Your task to perform on an android device: change keyboard looks Image 0: 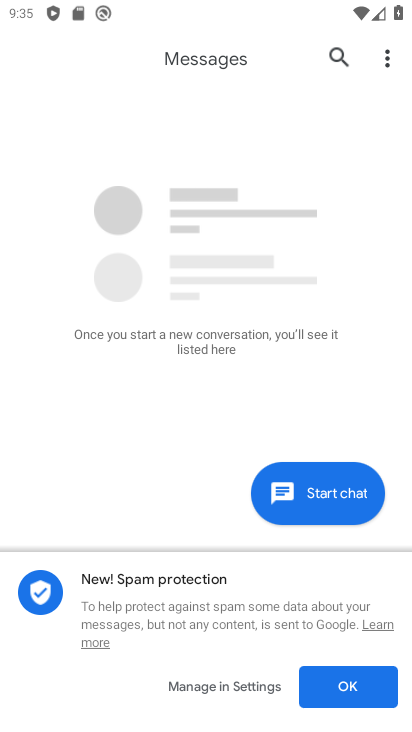
Step 0: press home button
Your task to perform on an android device: change keyboard looks Image 1: 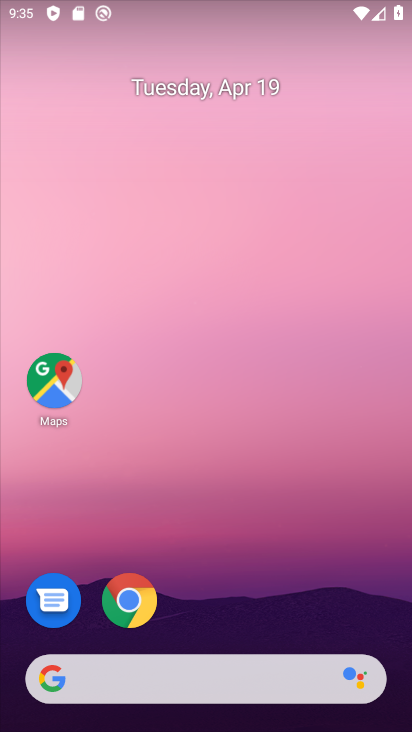
Step 1: drag from (265, 538) to (246, 45)
Your task to perform on an android device: change keyboard looks Image 2: 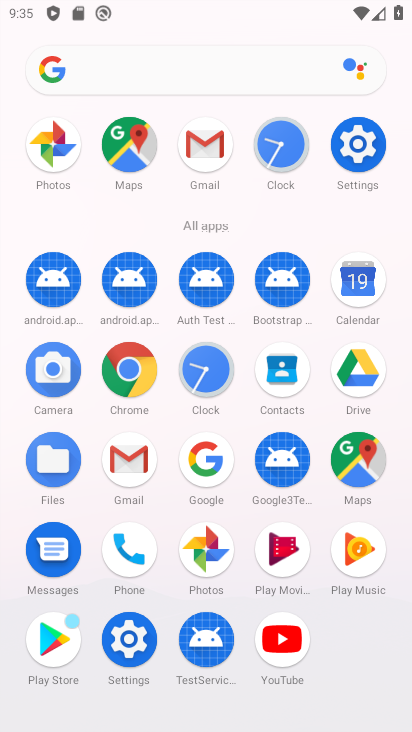
Step 2: click (348, 145)
Your task to perform on an android device: change keyboard looks Image 3: 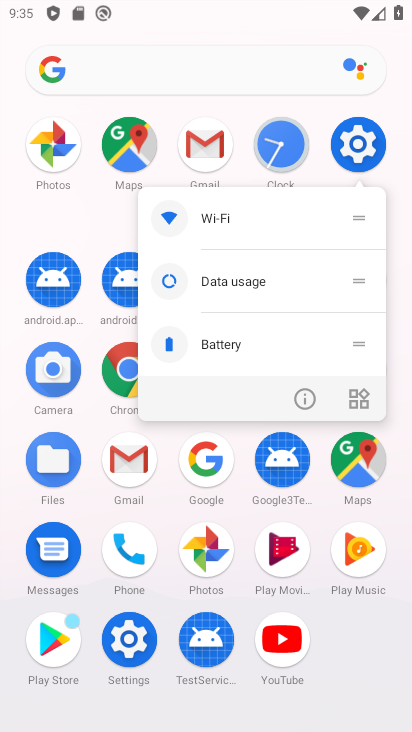
Step 3: click (364, 147)
Your task to perform on an android device: change keyboard looks Image 4: 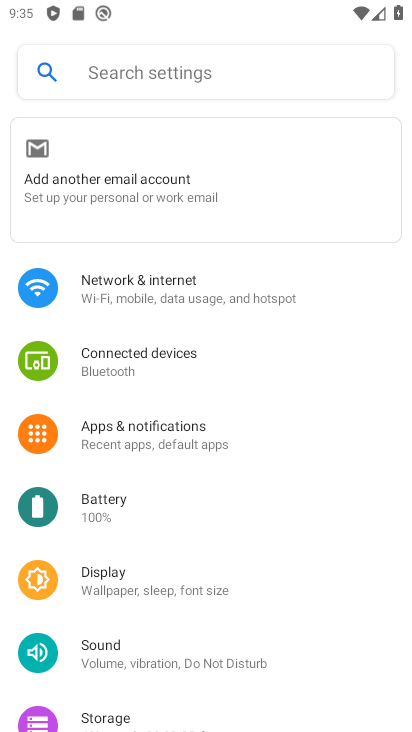
Step 4: drag from (118, 684) to (174, 115)
Your task to perform on an android device: change keyboard looks Image 5: 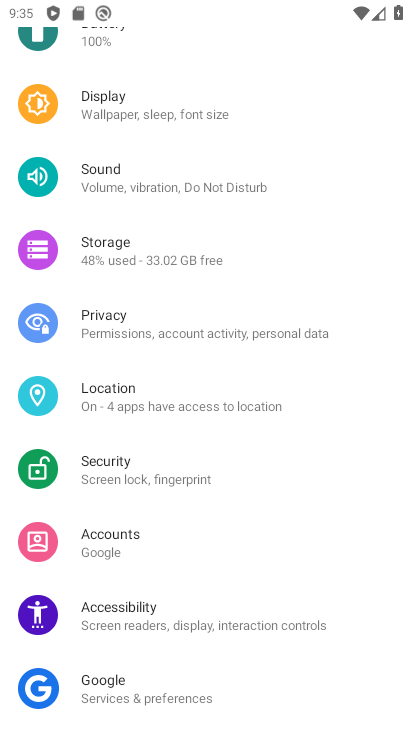
Step 5: drag from (89, 604) to (131, 39)
Your task to perform on an android device: change keyboard looks Image 6: 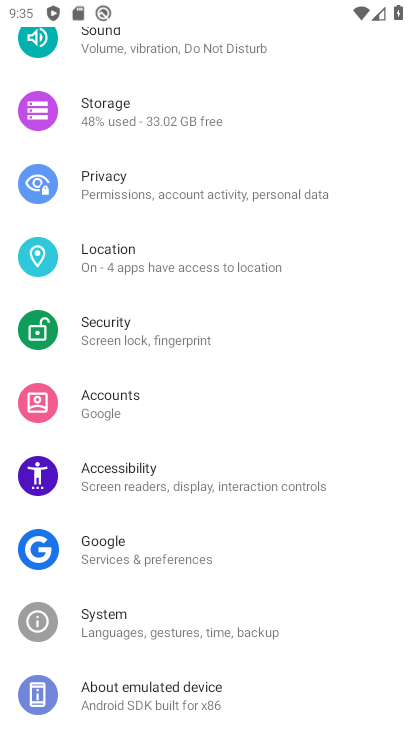
Step 6: click (166, 637)
Your task to perform on an android device: change keyboard looks Image 7: 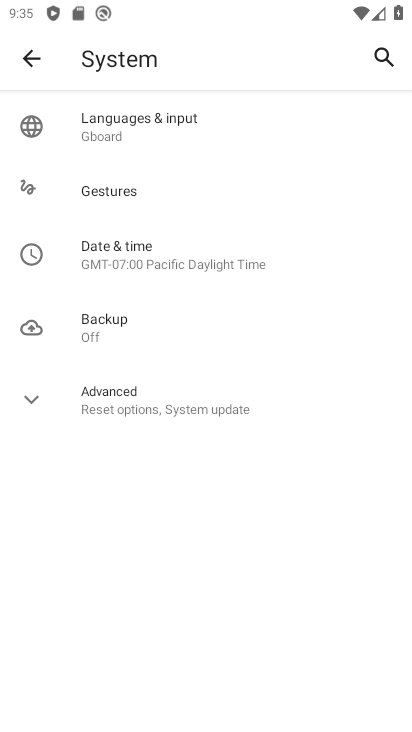
Step 7: click (194, 126)
Your task to perform on an android device: change keyboard looks Image 8: 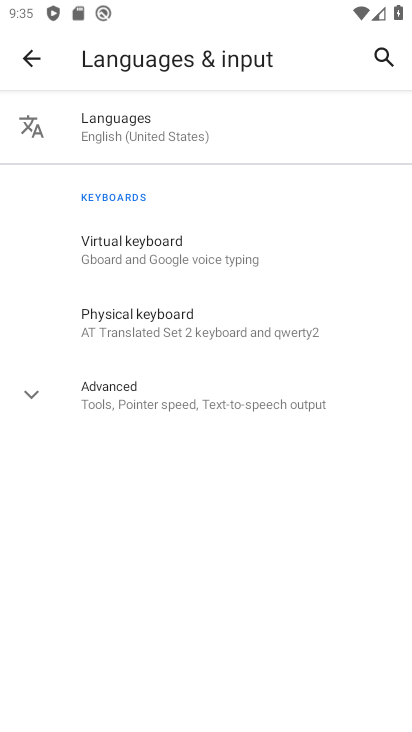
Step 8: click (164, 244)
Your task to perform on an android device: change keyboard looks Image 9: 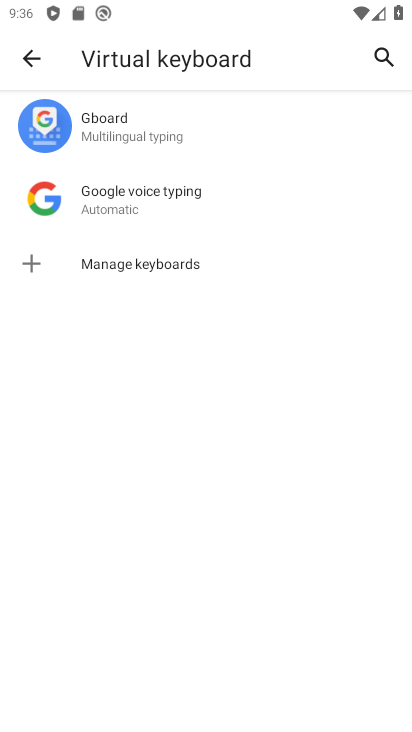
Step 9: click (162, 152)
Your task to perform on an android device: change keyboard looks Image 10: 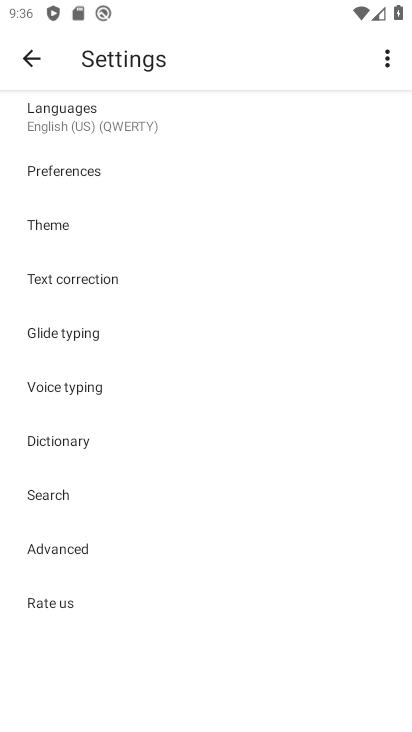
Step 10: click (109, 225)
Your task to perform on an android device: change keyboard looks Image 11: 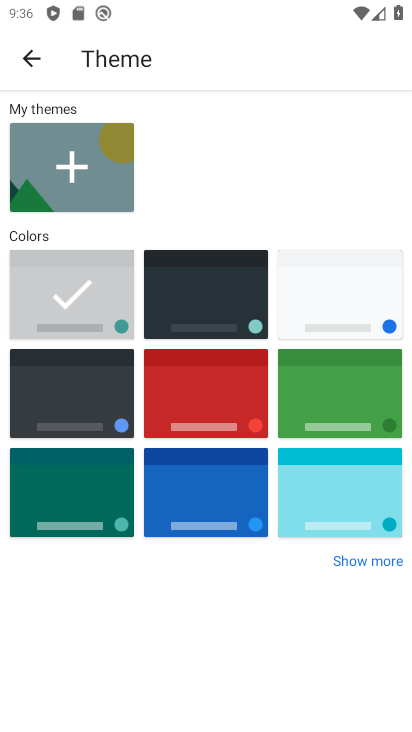
Step 11: click (190, 287)
Your task to perform on an android device: change keyboard looks Image 12: 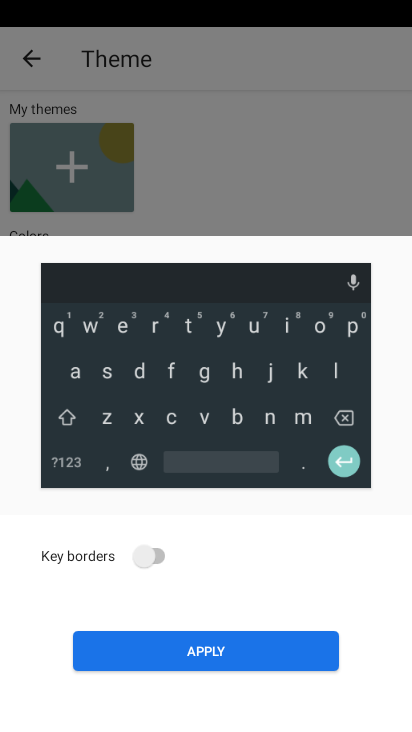
Step 12: click (158, 646)
Your task to perform on an android device: change keyboard looks Image 13: 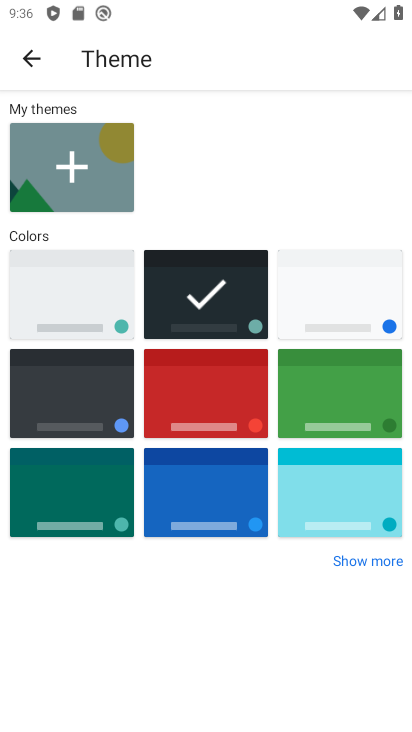
Step 13: task complete